Your task to perform on an android device: Open Chrome and go to settings Image 0: 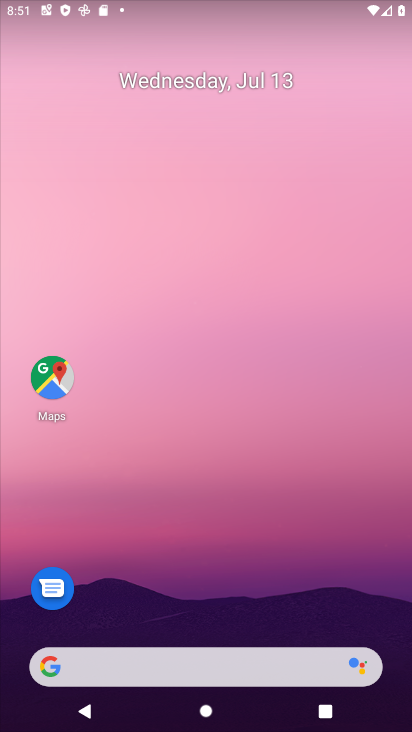
Step 0: click (51, 383)
Your task to perform on an android device: Open Chrome and go to settings Image 1: 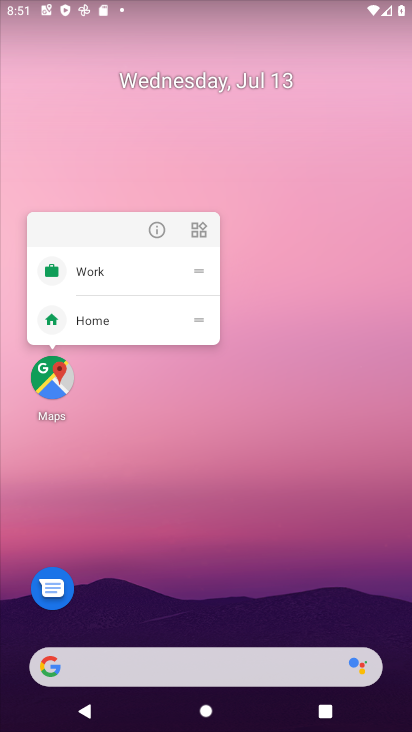
Step 1: press home button
Your task to perform on an android device: Open Chrome and go to settings Image 2: 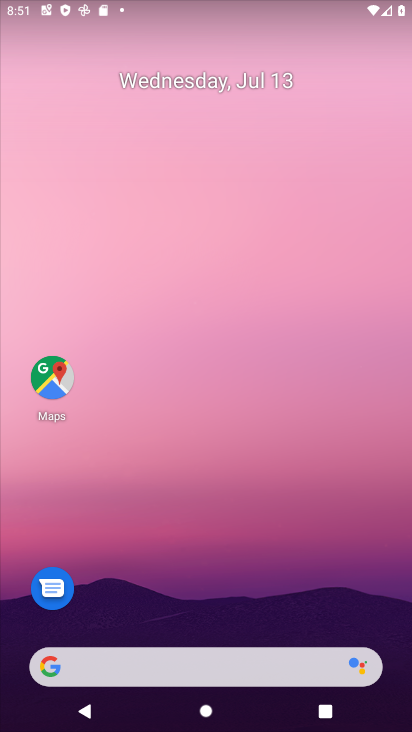
Step 2: drag from (238, 718) to (341, 108)
Your task to perform on an android device: Open Chrome and go to settings Image 3: 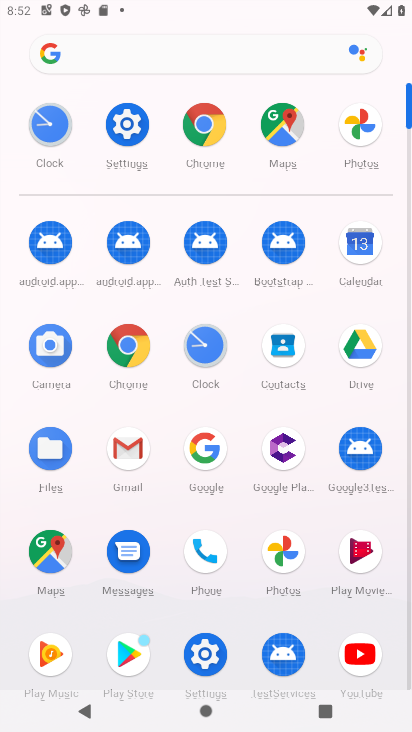
Step 3: click (216, 135)
Your task to perform on an android device: Open Chrome and go to settings Image 4: 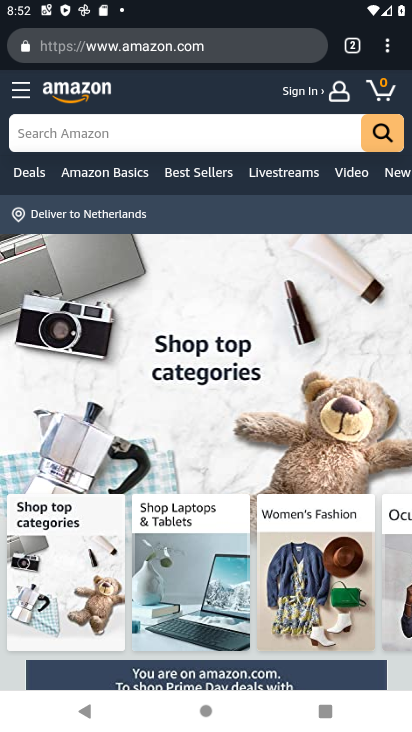
Step 4: click (389, 43)
Your task to perform on an android device: Open Chrome and go to settings Image 5: 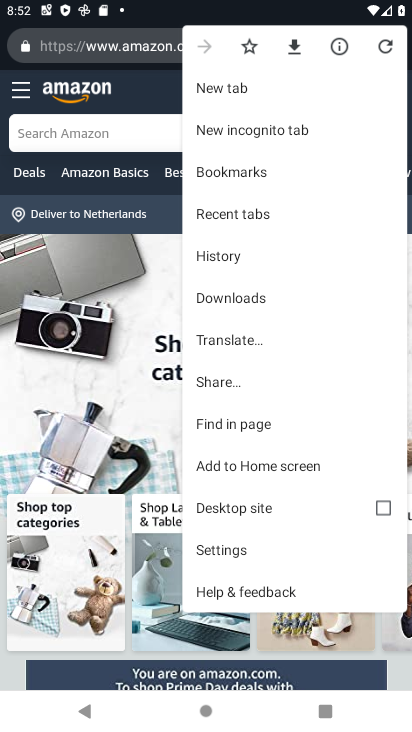
Step 5: click (233, 556)
Your task to perform on an android device: Open Chrome and go to settings Image 6: 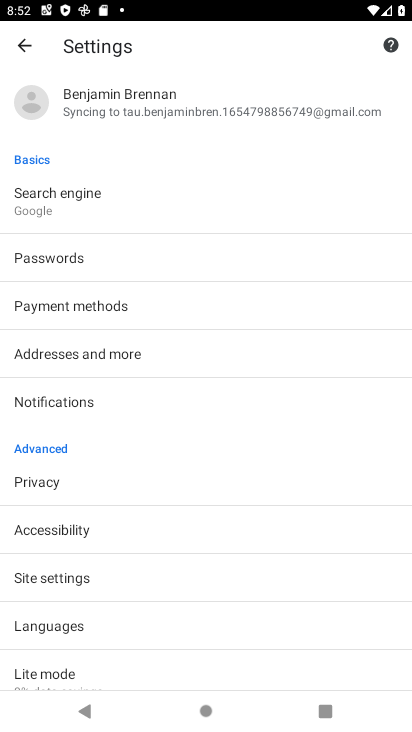
Step 6: task complete